Your task to perform on an android device: Open ESPN.com Image 0: 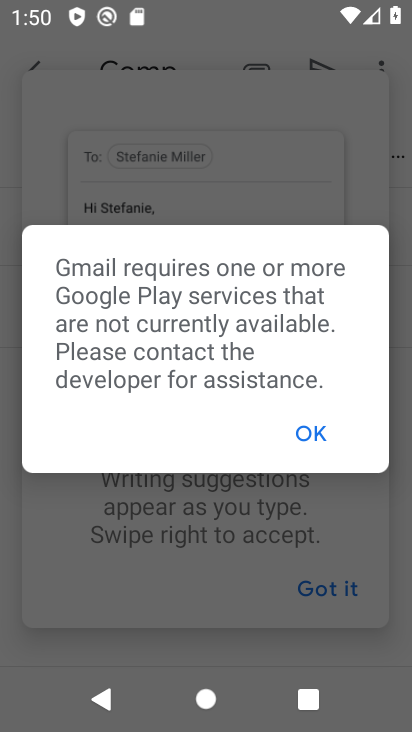
Step 0: click (314, 438)
Your task to perform on an android device: Open ESPN.com Image 1: 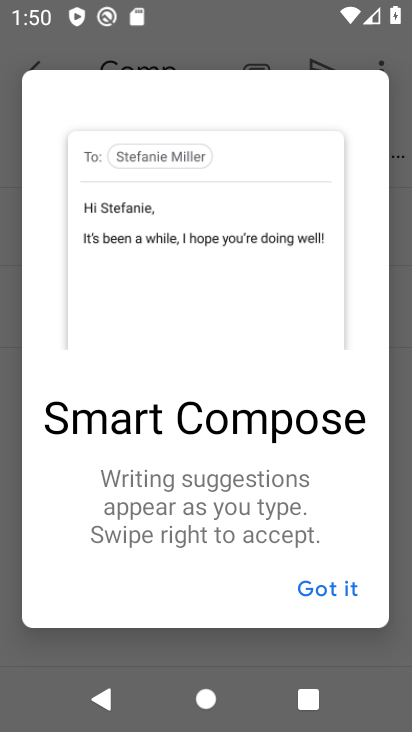
Step 1: click (339, 579)
Your task to perform on an android device: Open ESPN.com Image 2: 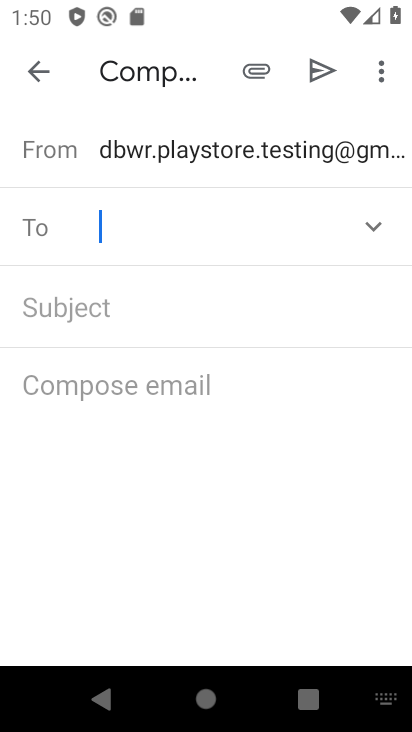
Step 2: press home button
Your task to perform on an android device: Open ESPN.com Image 3: 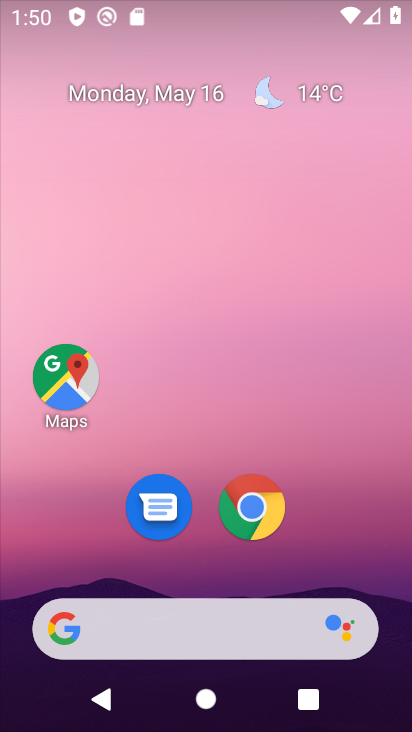
Step 3: drag from (257, 554) to (310, 150)
Your task to perform on an android device: Open ESPN.com Image 4: 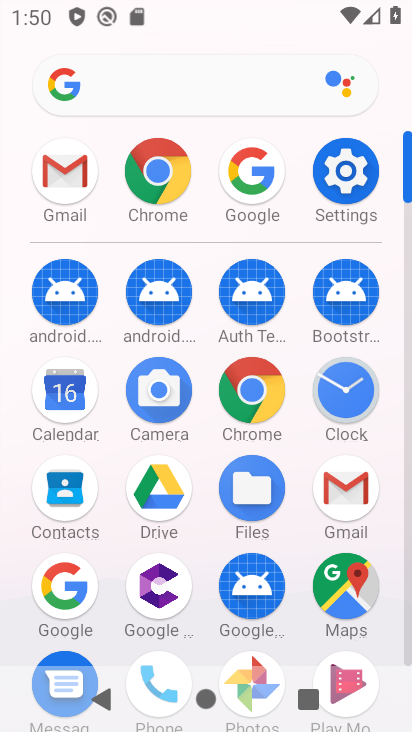
Step 4: click (260, 413)
Your task to perform on an android device: Open ESPN.com Image 5: 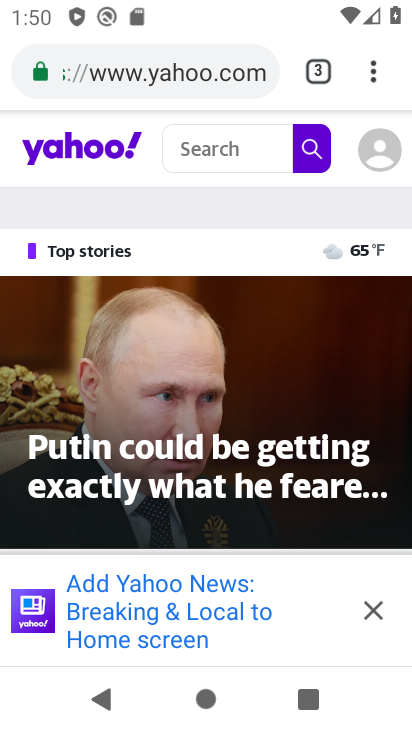
Step 5: click (320, 84)
Your task to perform on an android device: Open ESPN.com Image 6: 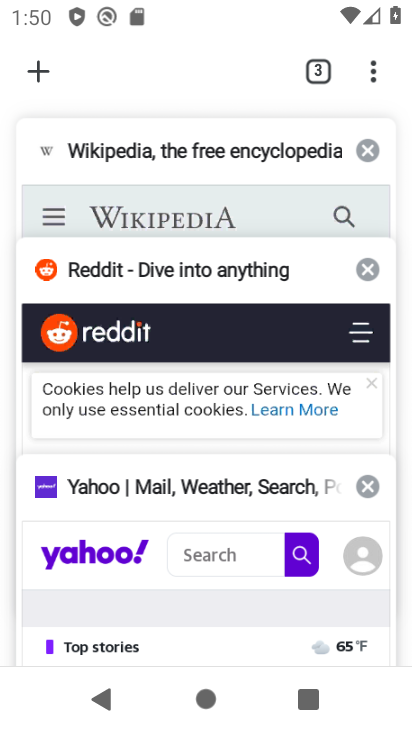
Step 6: click (39, 68)
Your task to perform on an android device: Open ESPN.com Image 7: 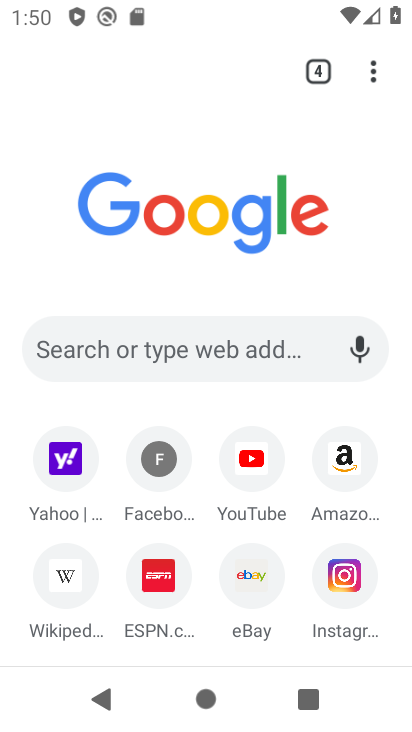
Step 7: click (168, 602)
Your task to perform on an android device: Open ESPN.com Image 8: 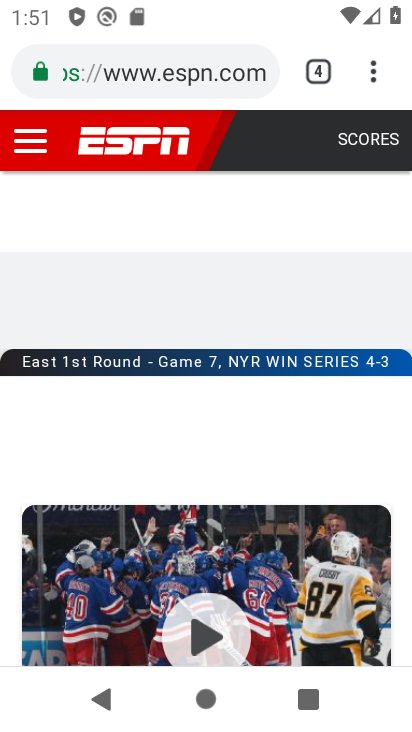
Step 8: task complete